Your task to perform on an android device: Search for the best rated phone case for the iPhone 8. Image 0: 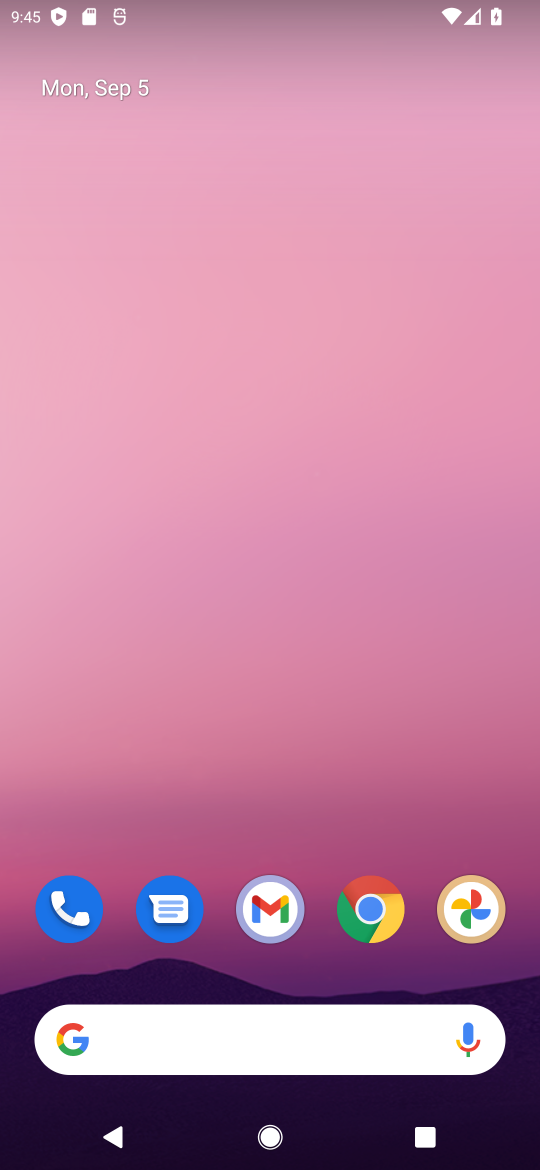
Step 0: click (285, 930)
Your task to perform on an android device: Search for the best rated phone case for the iPhone 8. Image 1: 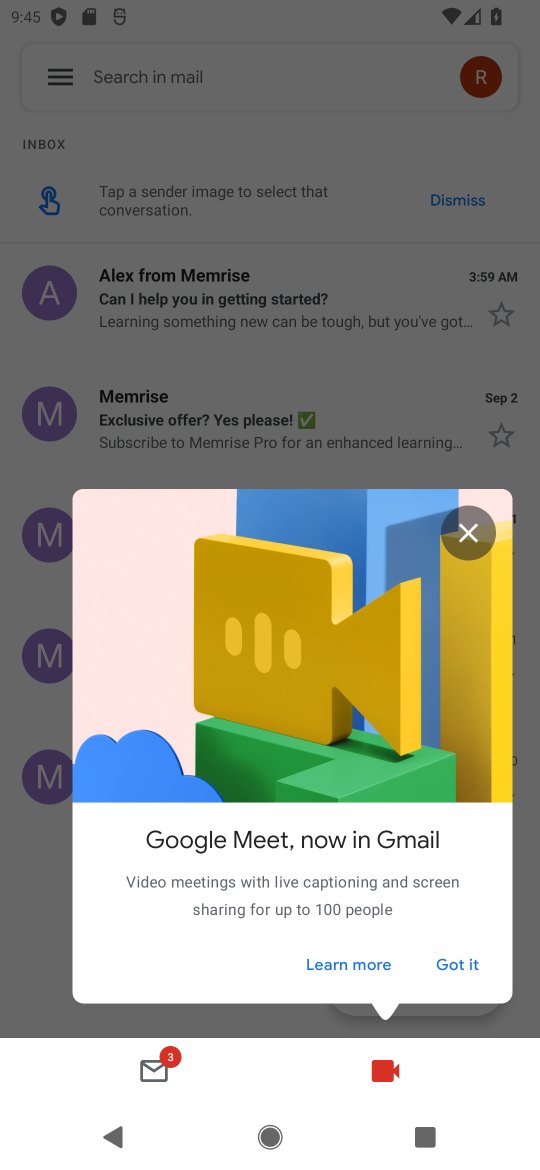
Step 1: task complete